Your task to perform on an android device: change timer sound Image 0: 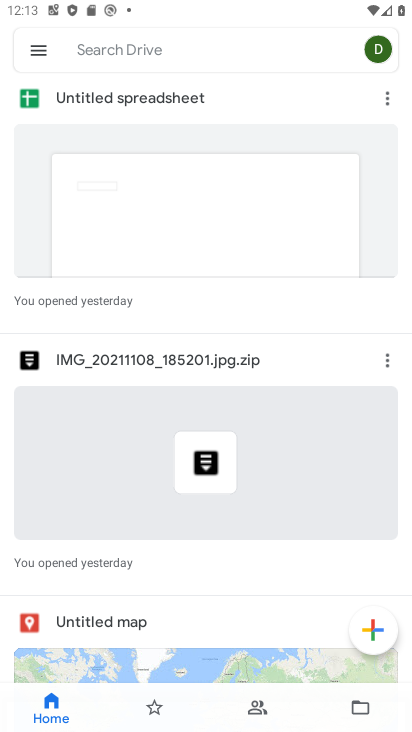
Step 0: press home button
Your task to perform on an android device: change timer sound Image 1: 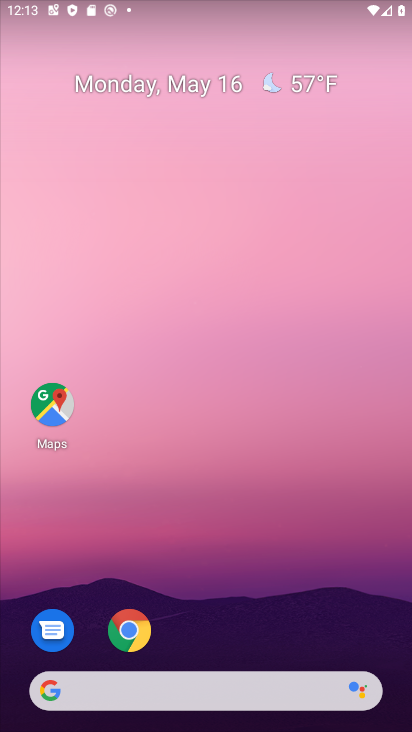
Step 1: drag from (199, 671) to (218, 240)
Your task to perform on an android device: change timer sound Image 2: 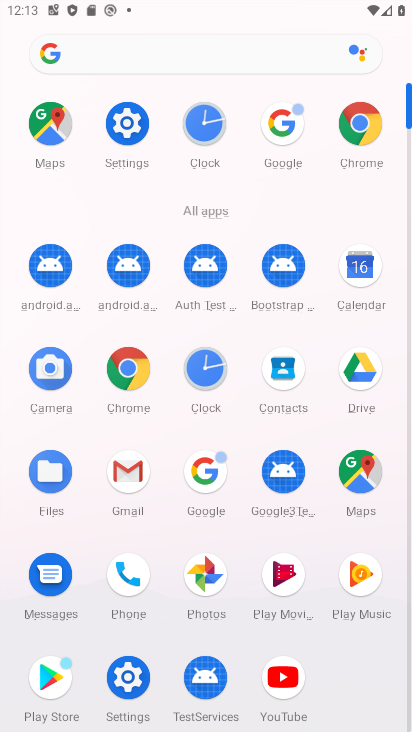
Step 2: click (206, 378)
Your task to perform on an android device: change timer sound Image 3: 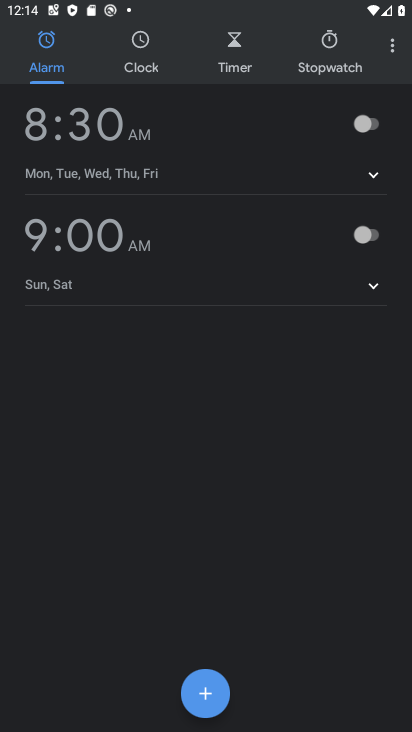
Step 3: click (397, 47)
Your task to perform on an android device: change timer sound Image 4: 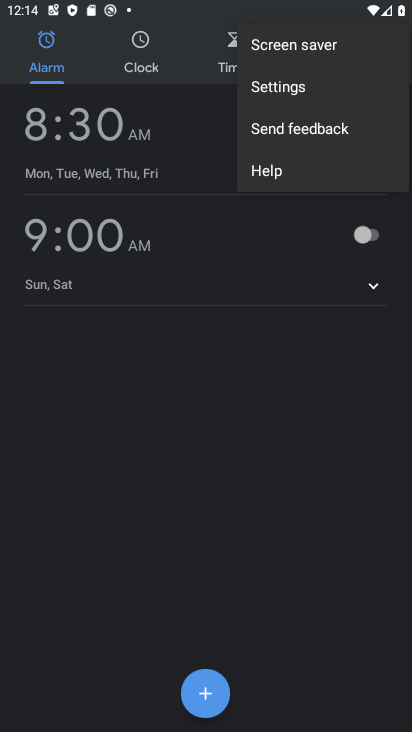
Step 4: click (301, 86)
Your task to perform on an android device: change timer sound Image 5: 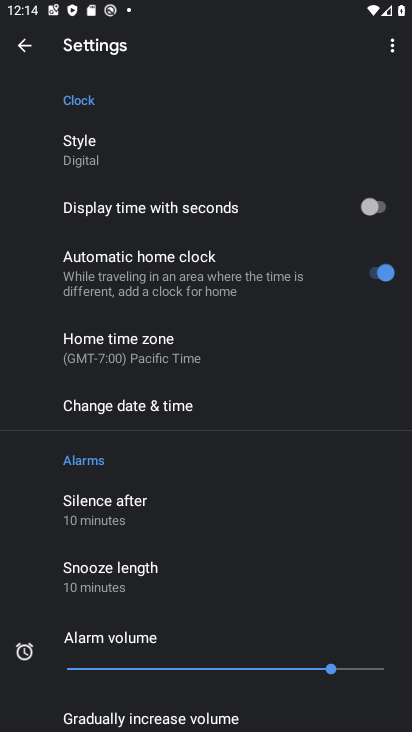
Step 5: drag from (173, 550) to (190, 185)
Your task to perform on an android device: change timer sound Image 6: 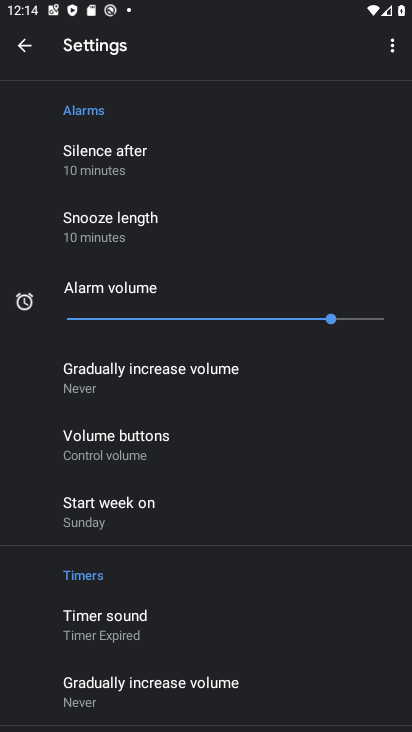
Step 6: click (123, 627)
Your task to perform on an android device: change timer sound Image 7: 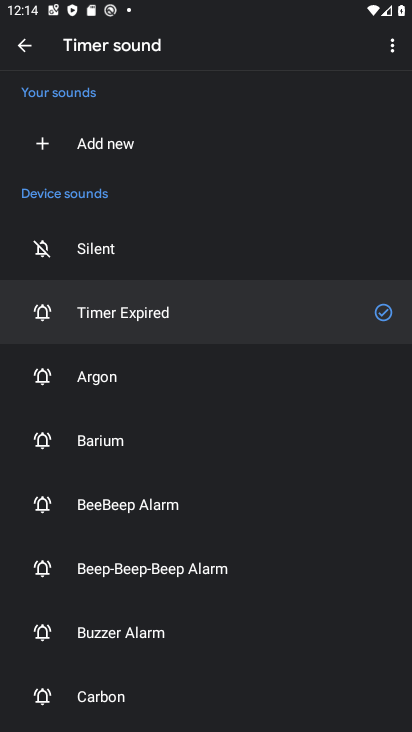
Step 7: click (109, 368)
Your task to perform on an android device: change timer sound Image 8: 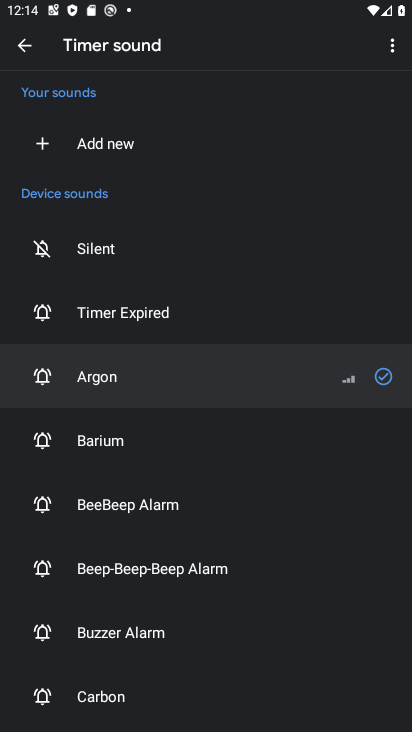
Step 8: task complete